Your task to perform on an android device: turn off notifications in google photos Image 0: 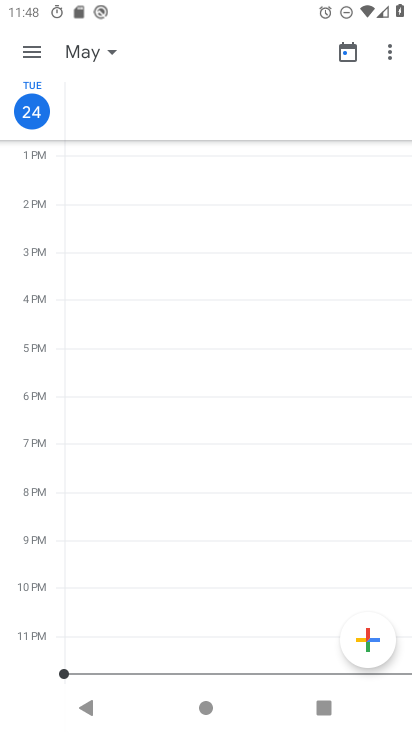
Step 0: press home button
Your task to perform on an android device: turn off notifications in google photos Image 1: 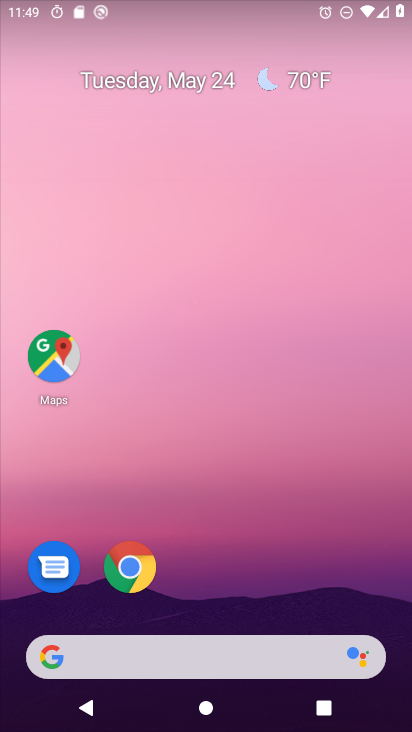
Step 1: drag from (400, 675) to (329, 285)
Your task to perform on an android device: turn off notifications in google photos Image 2: 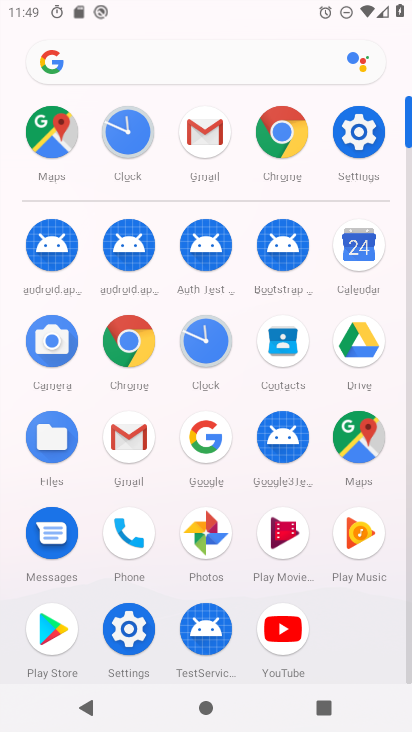
Step 2: click (204, 530)
Your task to perform on an android device: turn off notifications in google photos Image 3: 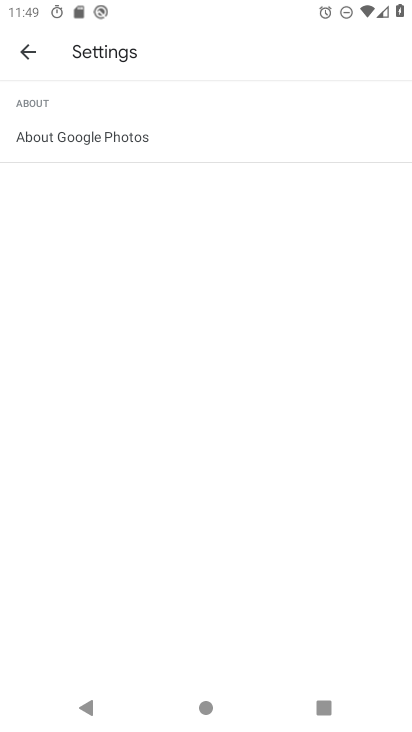
Step 3: click (23, 43)
Your task to perform on an android device: turn off notifications in google photos Image 4: 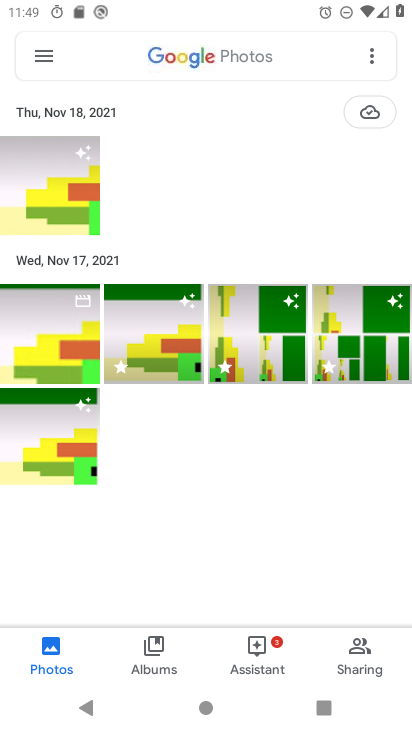
Step 4: click (43, 48)
Your task to perform on an android device: turn off notifications in google photos Image 5: 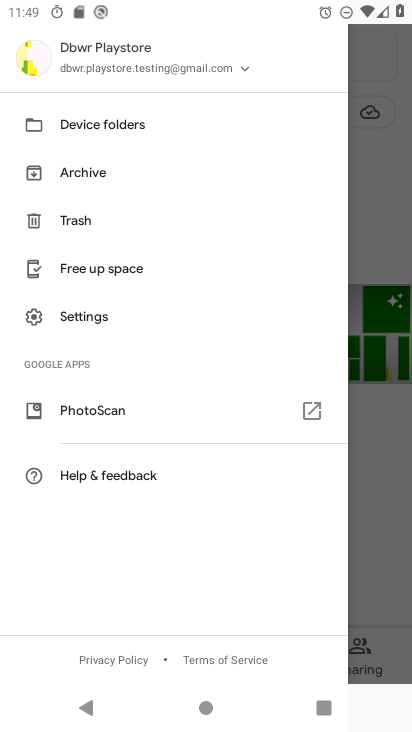
Step 5: click (79, 316)
Your task to perform on an android device: turn off notifications in google photos Image 6: 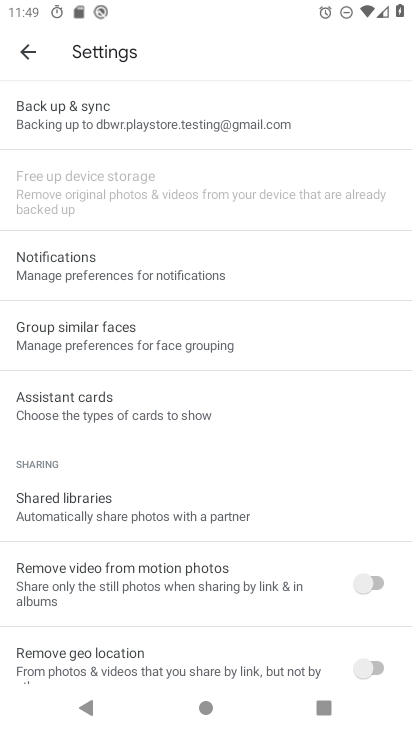
Step 6: click (86, 275)
Your task to perform on an android device: turn off notifications in google photos Image 7: 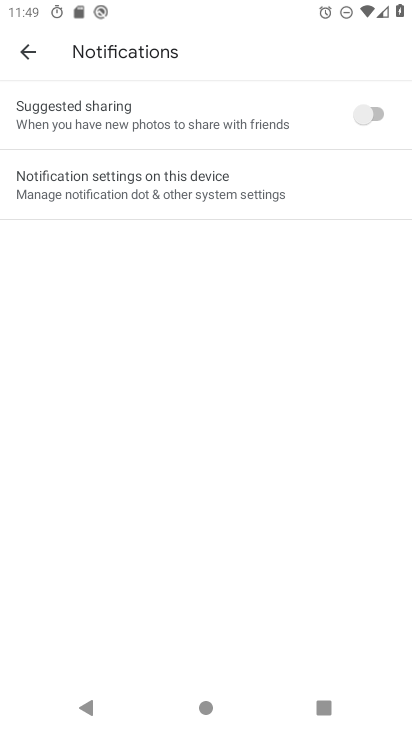
Step 7: task complete